Your task to perform on an android device: turn on data saver in the chrome app Image 0: 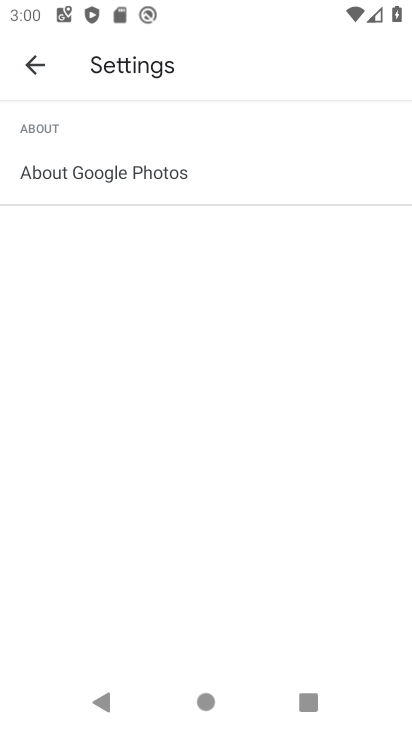
Step 0: press back button
Your task to perform on an android device: turn on data saver in the chrome app Image 1: 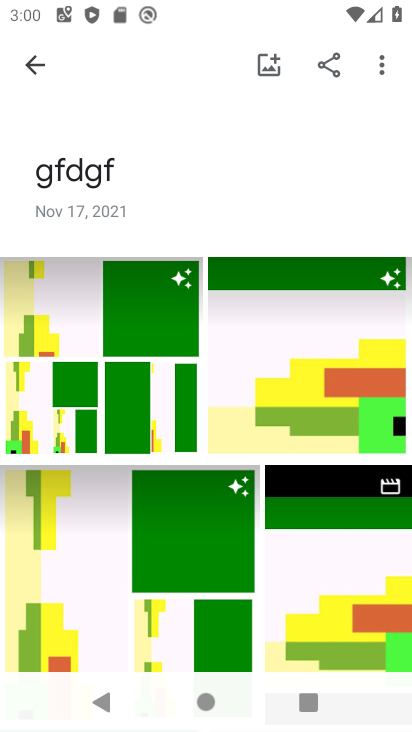
Step 1: press home button
Your task to perform on an android device: turn on data saver in the chrome app Image 2: 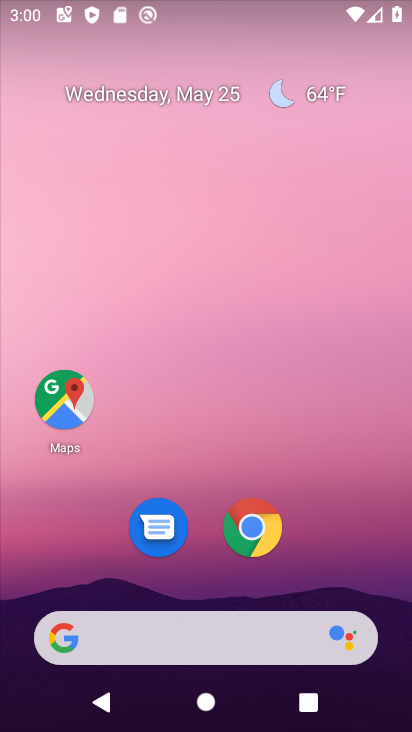
Step 2: click (266, 532)
Your task to perform on an android device: turn on data saver in the chrome app Image 3: 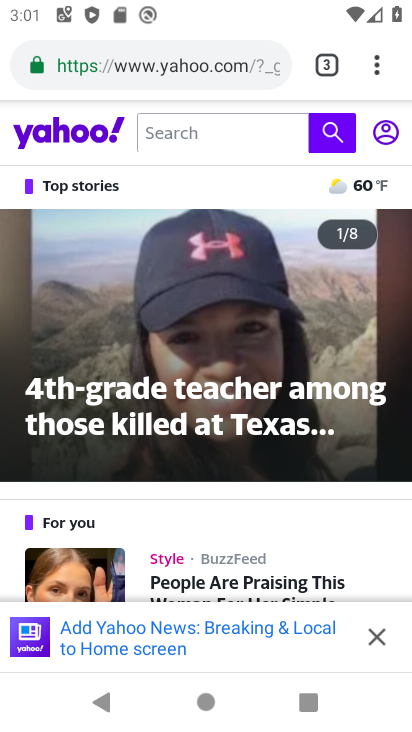
Step 3: drag from (374, 61) to (163, 571)
Your task to perform on an android device: turn on data saver in the chrome app Image 4: 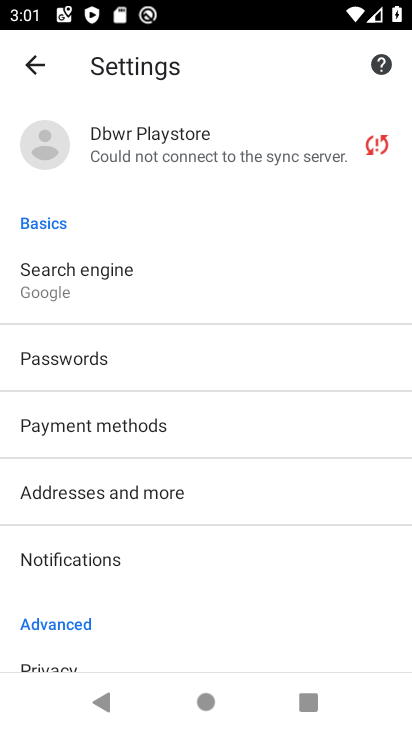
Step 4: drag from (151, 618) to (243, 170)
Your task to perform on an android device: turn on data saver in the chrome app Image 5: 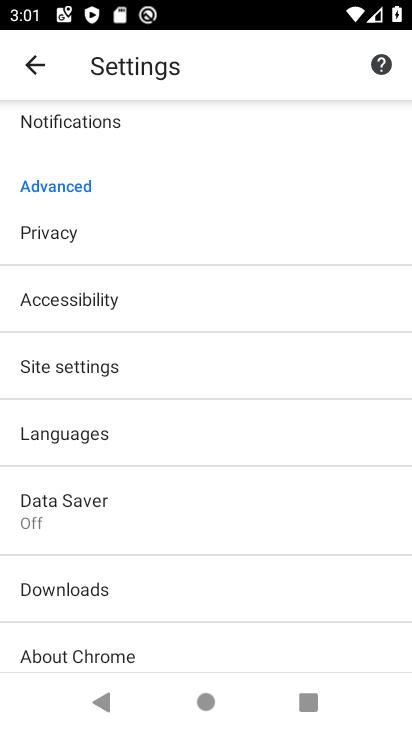
Step 5: click (89, 519)
Your task to perform on an android device: turn on data saver in the chrome app Image 6: 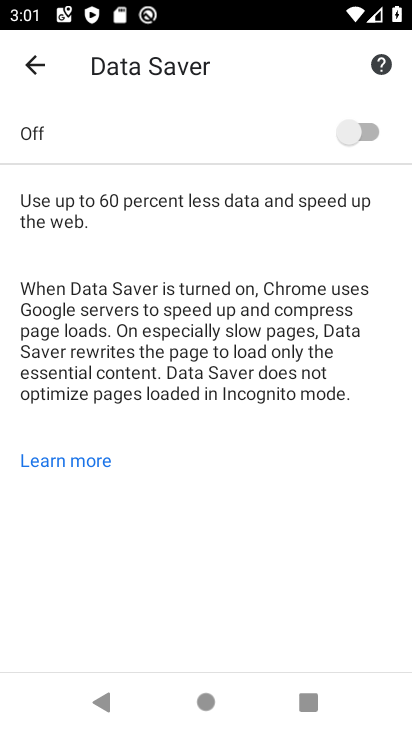
Step 6: click (349, 132)
Your task to perform on an android device: turn on data saver in the chrome app Image 7: 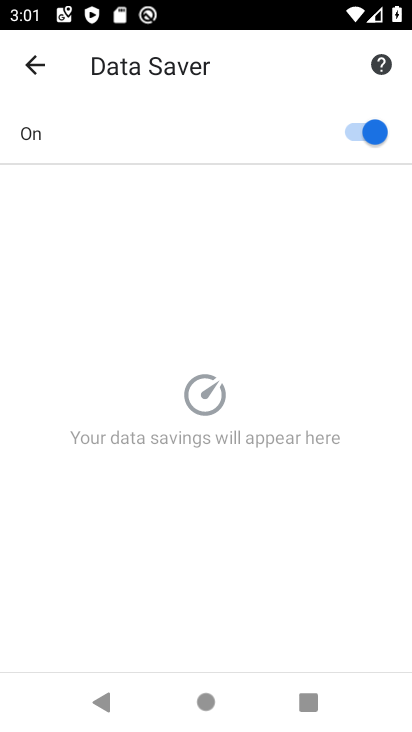
Step 7: task complete